Your task to perform on an android device: toggle sleep mode Image 0: 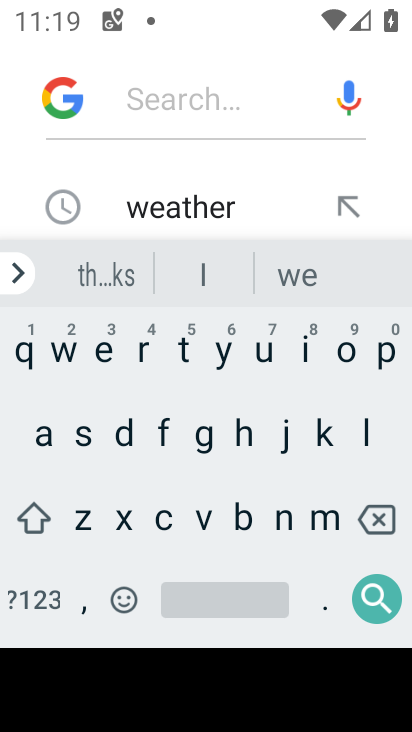
Step 0: press home button
Your task to perform on an android device: toggle sleep mode Image 1: 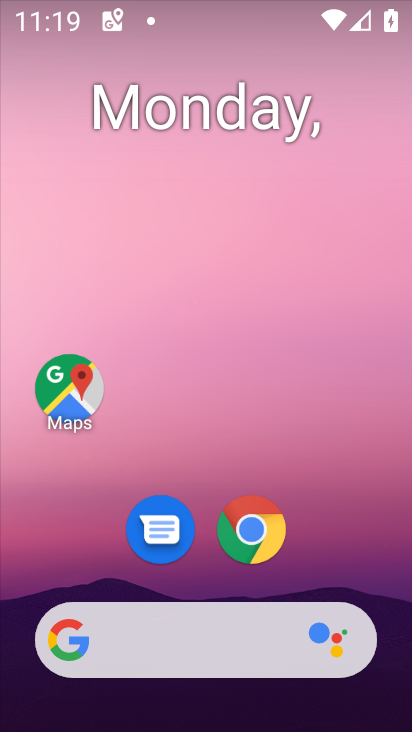
Step 1: drag from (242, 669) to (175, 396)
Your task to perform on an android device: toggle sleep mode Image 2: 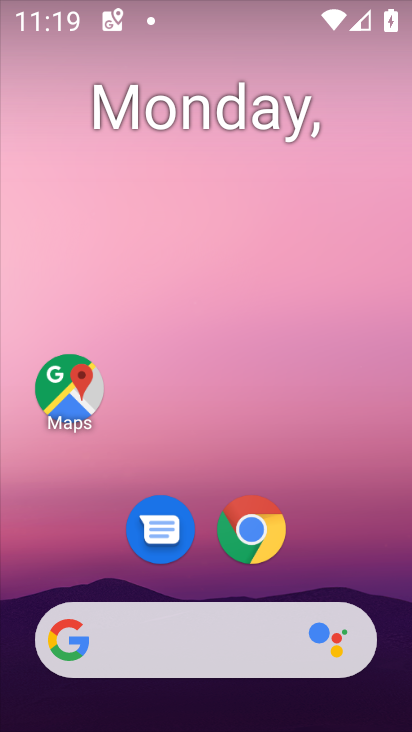
Step 2: drag from (243, 671) to (208, 249)
Your task to perform on an android device: toggle sleep mode Image 3: 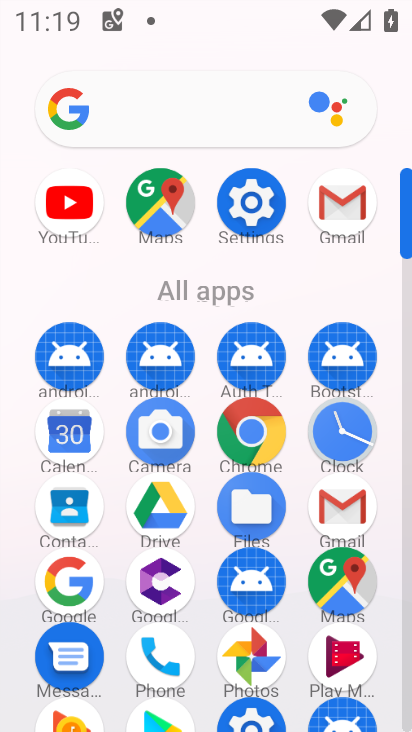
Step 3: click (258, 206)
Your task to perform on an android device: toggle sleep mode Image 4: 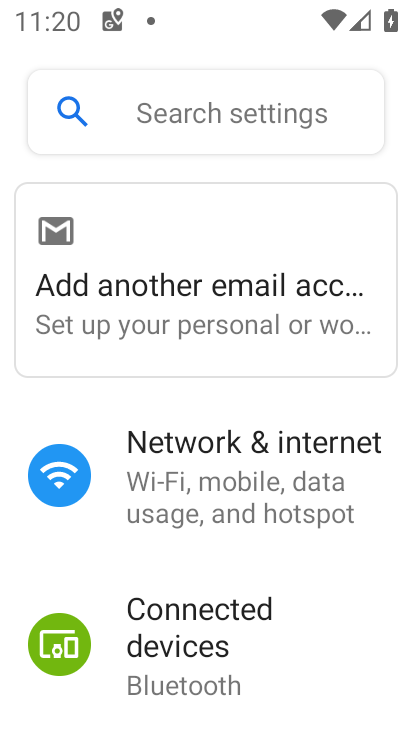
Step 4: click (190, 110)
Your task to perform on an android device: toggle sleep mode Image 5: 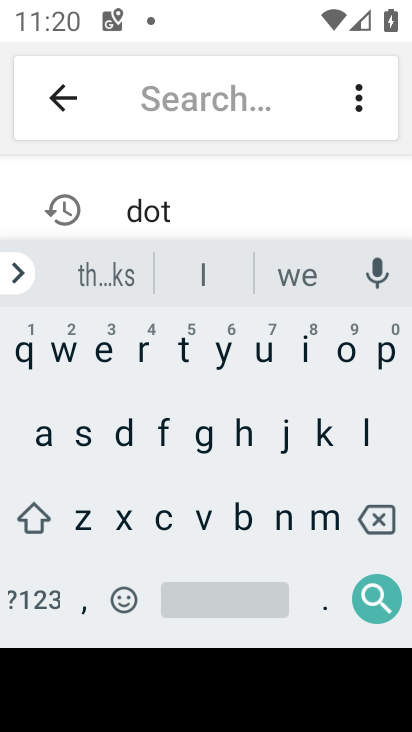
Step 5: click (91, 433)
Your task to perform on an android device: toggle sleep mode Image 6: 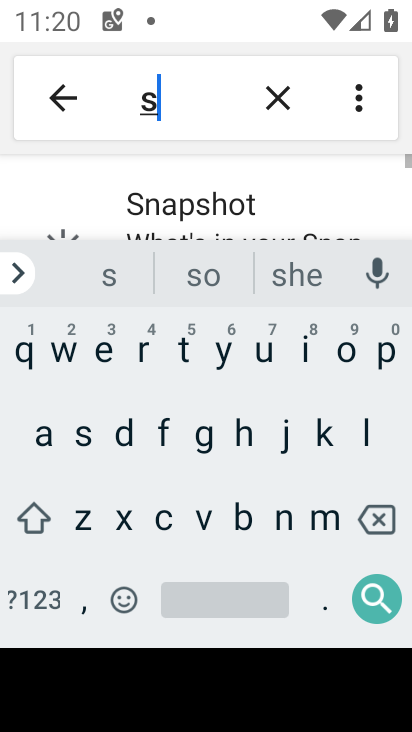
Step 6: click (373, 438)
Your task to perform on an android device: toggle sleep mode Image 7: 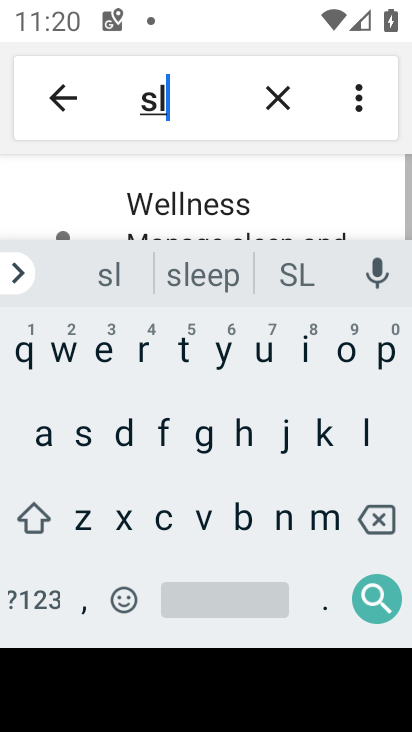
Step 7: click (95, 349)
Your task to perform on an android device: toggle sleep mode Image 8: 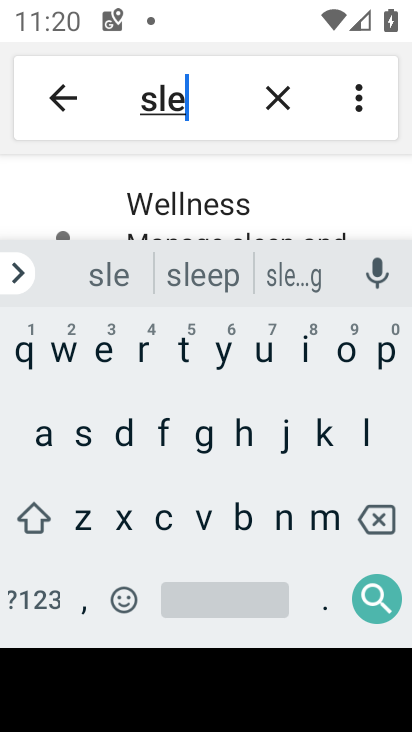
Step 8: click (171, 204)
Your task to perform on an android device: toggle sleep mode Image 9: 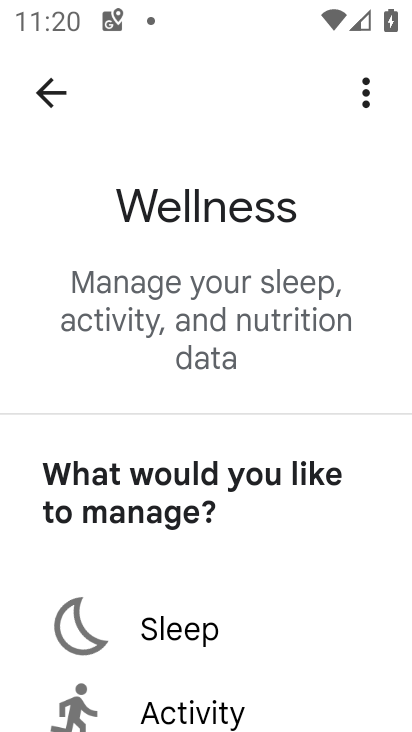
Step 9: click (187, 636)
Your task to perform on an android device: toggle sleep mode Image 10: 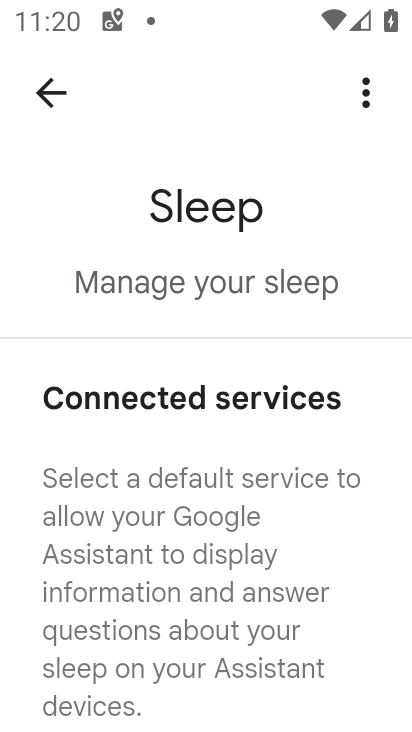
Step 10: task complete